Your task to perform on an android device: toggle location history Image 0: 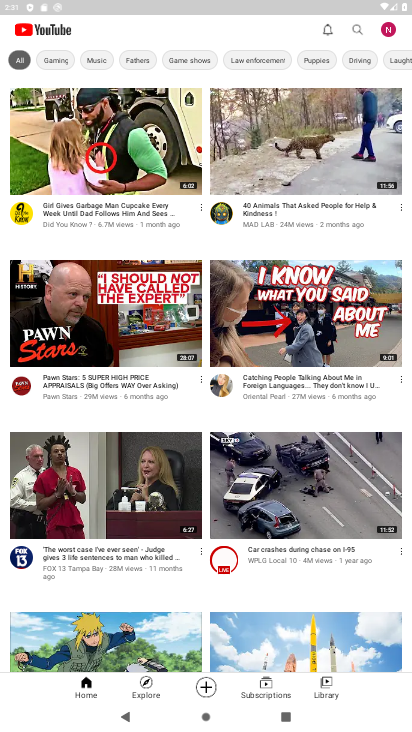
Step 0: press home button
Your task to perform on an android device: toggle location history Image 1: 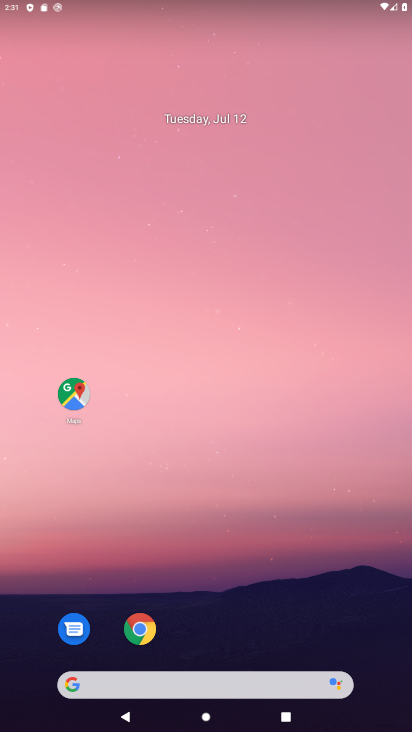
Step 1: drag from (210, 679) to (173, 191)
Your task to perform on an android device: toggle location history Image 2: 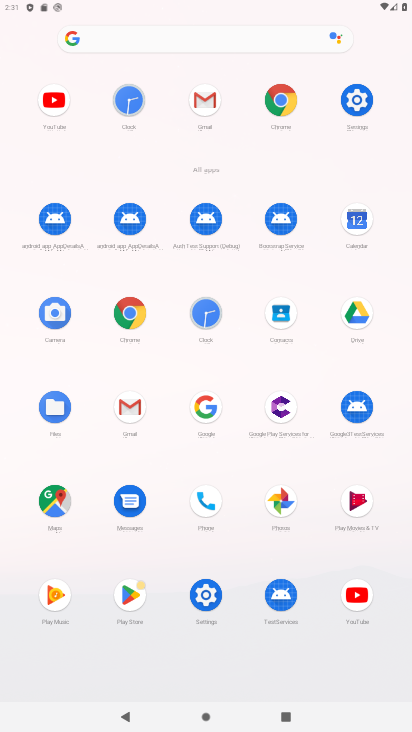
Step 2: click (204, 594)
Your task to perform on an android device: toggle location history Image 3: 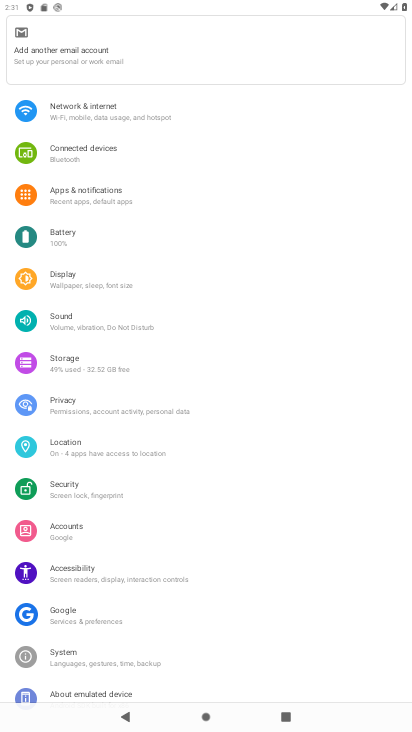
Step 3: click (86, 454)
Your task to perform on an android device: toggle location history Image 4: 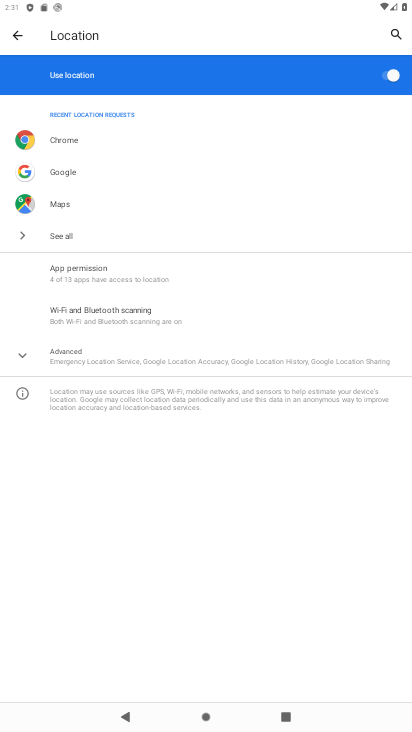
Step 4: click (133, 358)
Your task to perform on an android device: toggle location history Image 5: 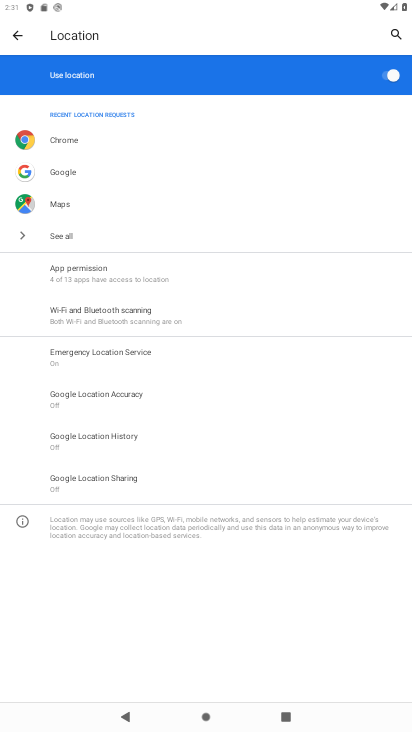
Step 5: click (135, 441)
Your task to perform on an android device: toggle location history Image 6: 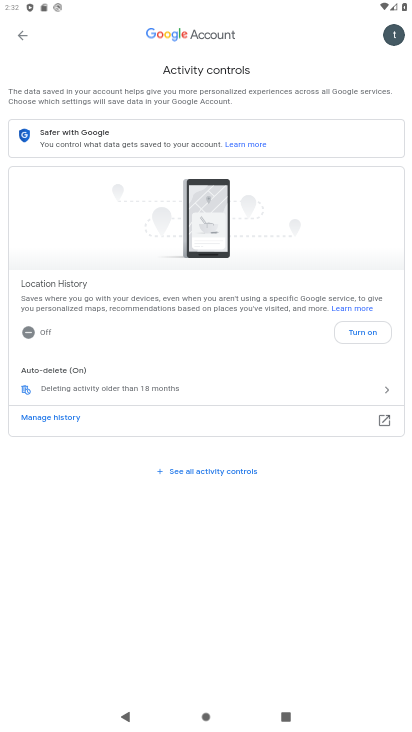
Step 6: click (357, 334)
Your task to perform on an android device: toggle location history Image 7: 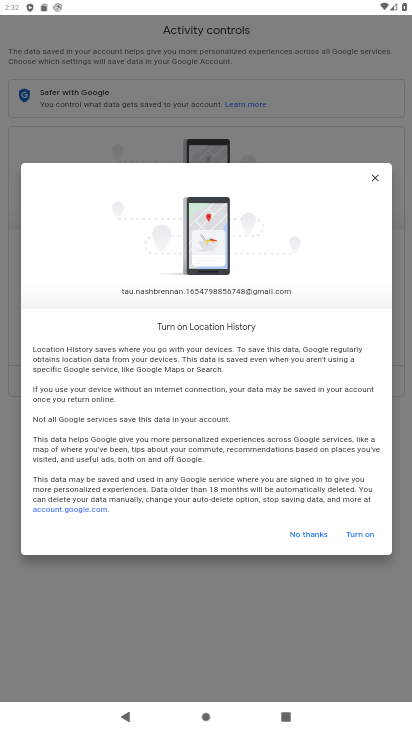
Step 7: click (360, 532)
Your task to perform on an android device: toggle location history Image 8: 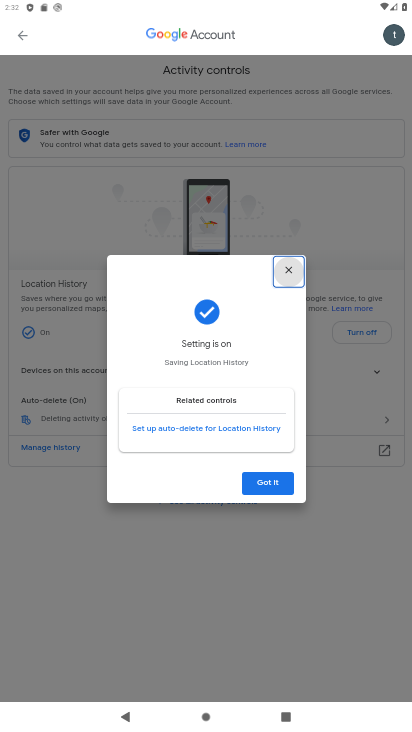
Step 8: click (282, 485)
Your task to perform on an android device: toggle location history Image 9: 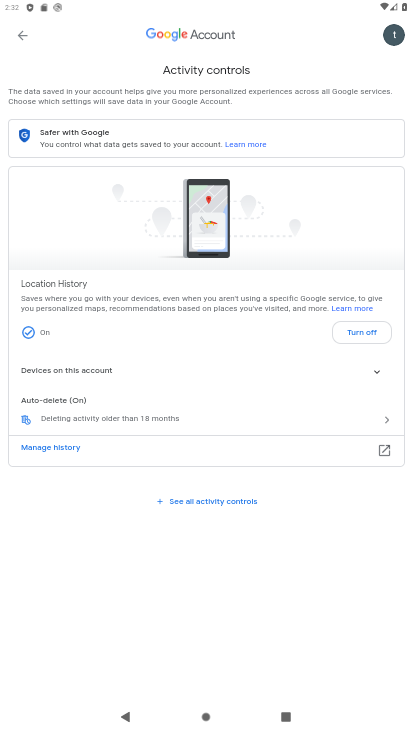
Step 9: task complete